Your task to perform on an android device: open the mobile data screen to see how much data has been used Image 0: 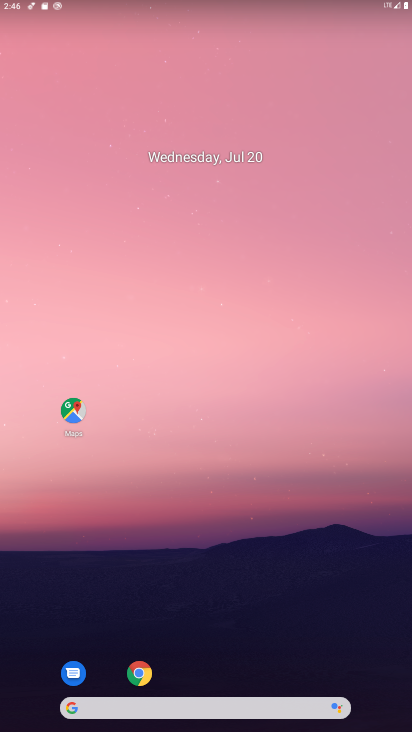
Step 0: drag from (210, 673) to (164, 13)
Your task to perform on an android device: open the mobile data screen to see how much data has been used Image 1: 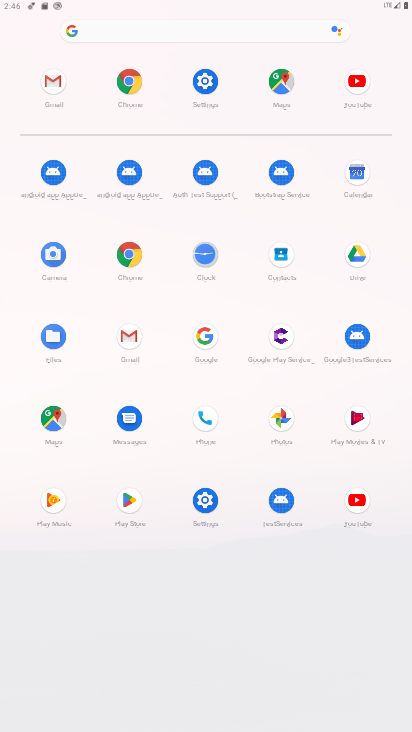
Step 1: click (202, 514)
Your task to perform on an android device: open the mobile data screen to see how much data has been used Image 2: 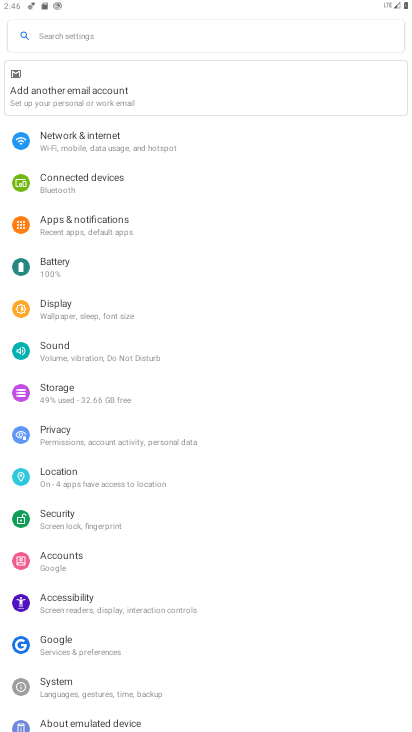
Step 2: click (125, 142)
Your task to perform on an android device: open the mobile data screen to see how much data has been used Image 3: 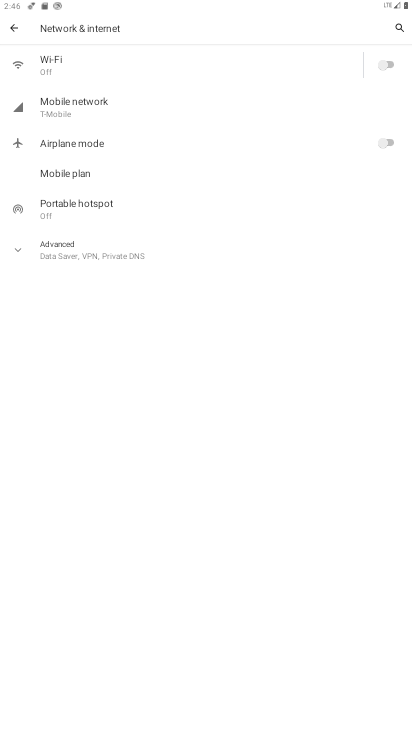
Step 3: click (107, 106)
Your task to perform on an android device: open the mobile data screen to see how much data has been used Image 4: 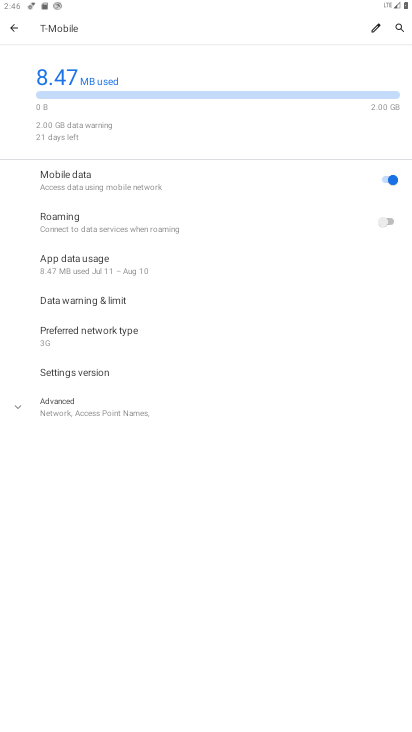
Step 4: click (117, 265)
Your task to perform on an android device: open the mobile data screen to see how much data has been used Image 5: 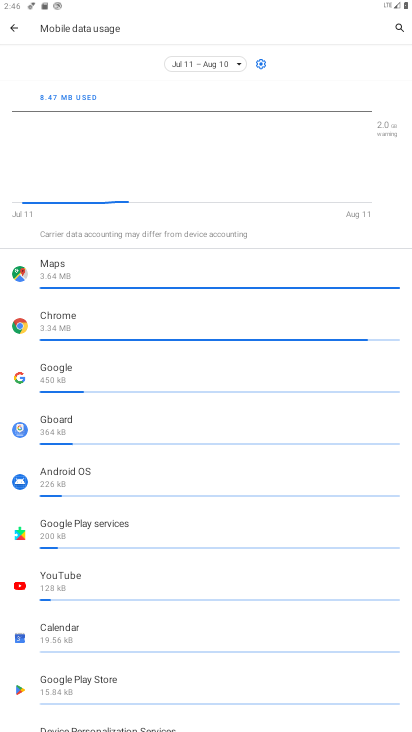
Step 5: task complete